Your task to perform on an android device: change the clock display to analog Image 0: 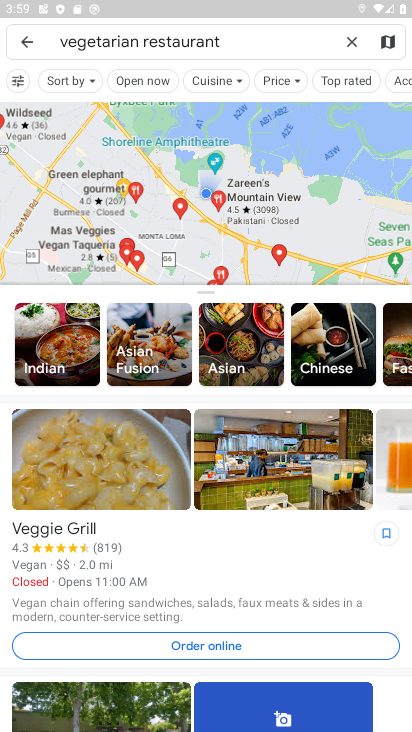
Step 0: press back button
Your task to perform on an android device: change the clock display to analog Image 1: 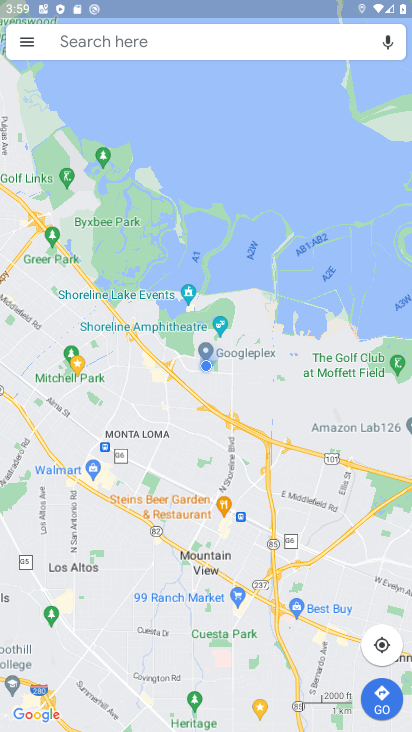
Step 1: press back button
Your task to perform on an android device: change the clock display to analog Image 2: 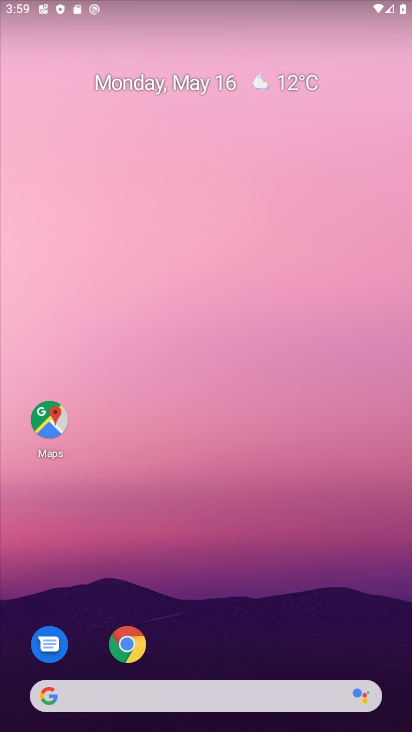
Step 2: drag from (184, 545) to (220, 93)
Your task to perform on an android device: change the clock display to analog Image 3: 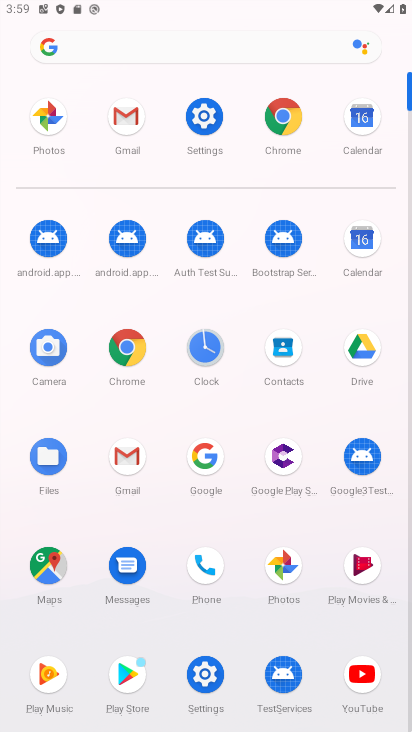
Step 3: click (207, 340)
Your task to perform on an android device: change the clock display to analog Image 4: 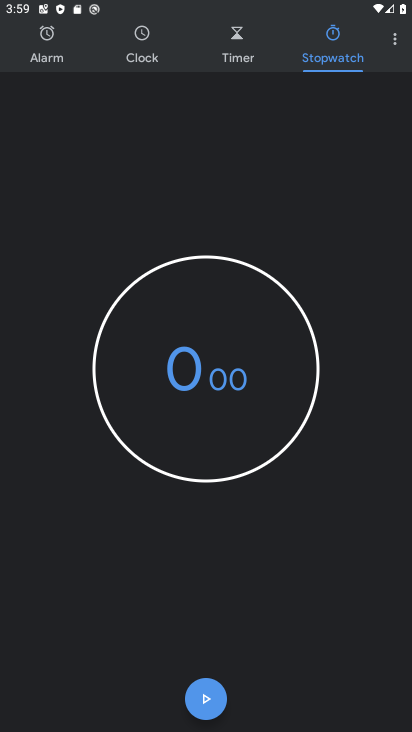
Step 4: click (391, 37)
Your task to perform on an android device: change the clock display to analog Image 5: 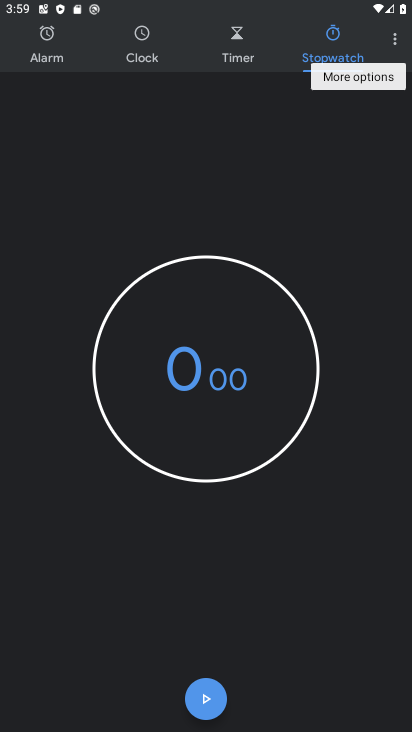
Step 5: click (392, 38)
Your task to perform on an android device: change the clock display to analog Image 6: 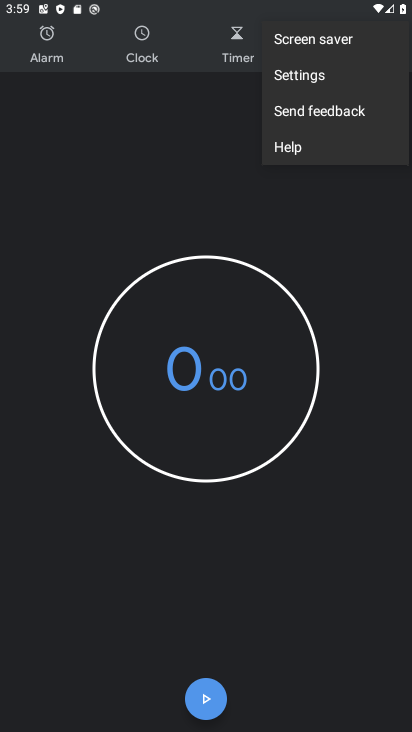
Step 6: click (335, 70)
Your task to perform on an android device: change the clock display to analog Image 7: 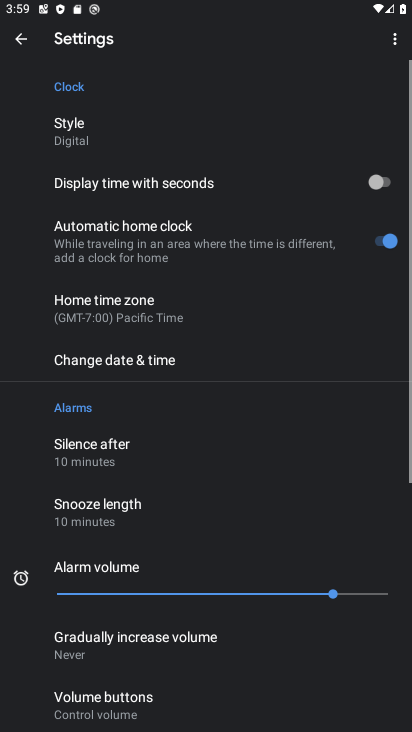
Step 7: click (97, 129)
Your task to perform on an android device: change the clock display to analog Image 8: 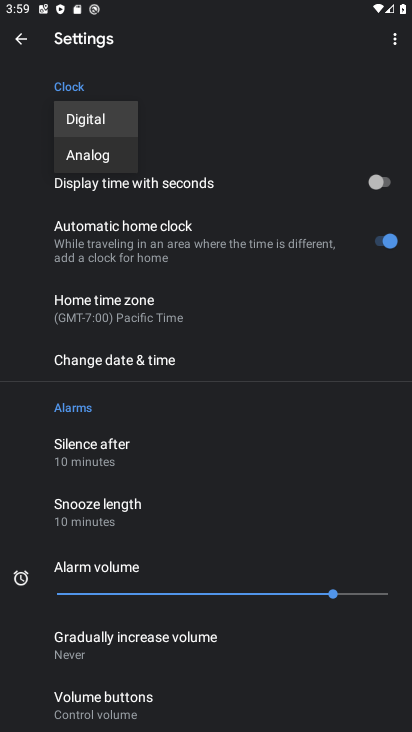
Step 8: click (108, 158)
Your task to perform on an android device: change the clock display to analog Image 9: 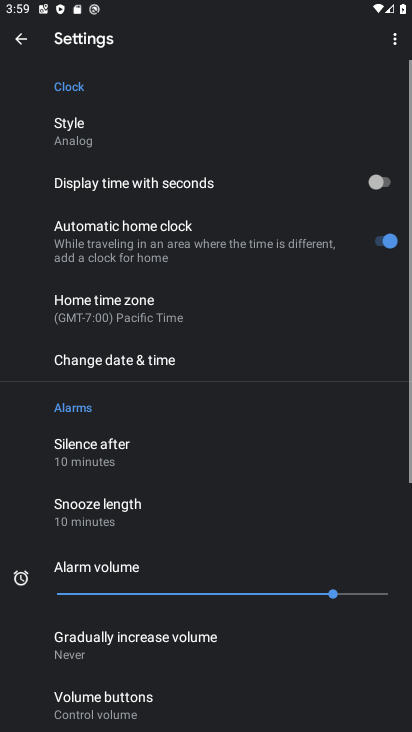
Step 9: task complete